Your task to perform on an android device: turn pop-ups off in chrome Image 0: 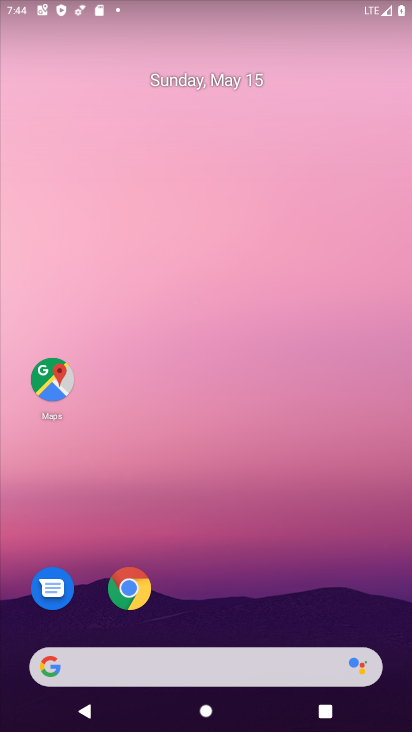
Step 0: drag from (331, 514) to (296, 64)
Your task to perform on an android device: turn pop-ups off in chrome Image 1: 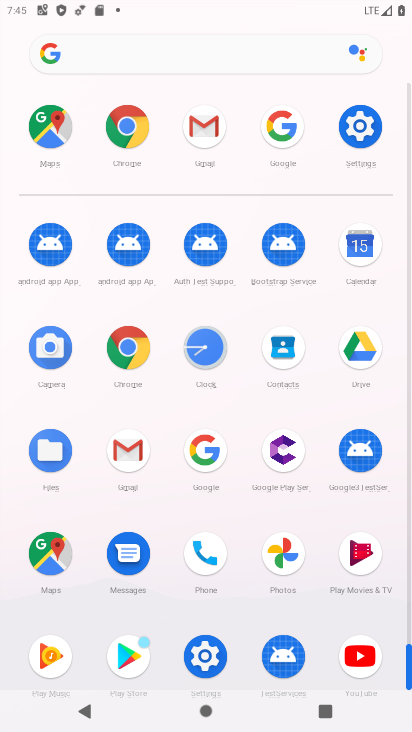
Step 1: click (120, 137)
Your task to perform on an android device: turn pop-ups off in chrome Image 2: 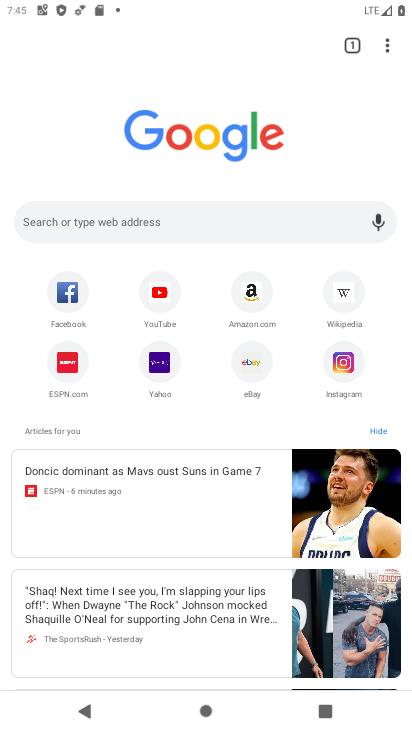
Step 2: click (387, 36)
Your task to perform on an android device: turn pop-ups off in chrome Image 3: 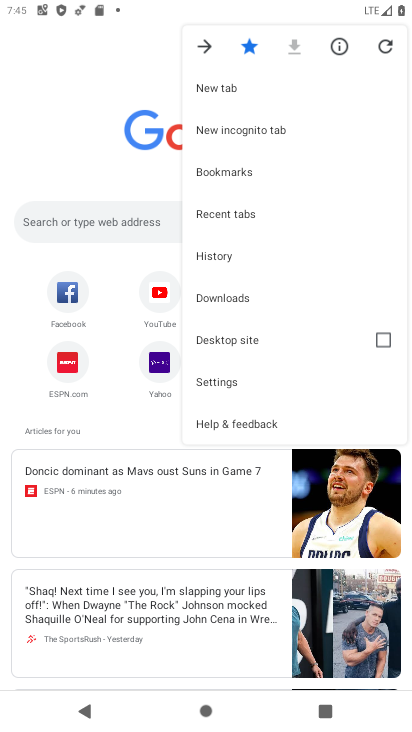
Step 3: click (239, 377)
Your task to perform on an android device: turn pop-ups off in chrome Image 4: 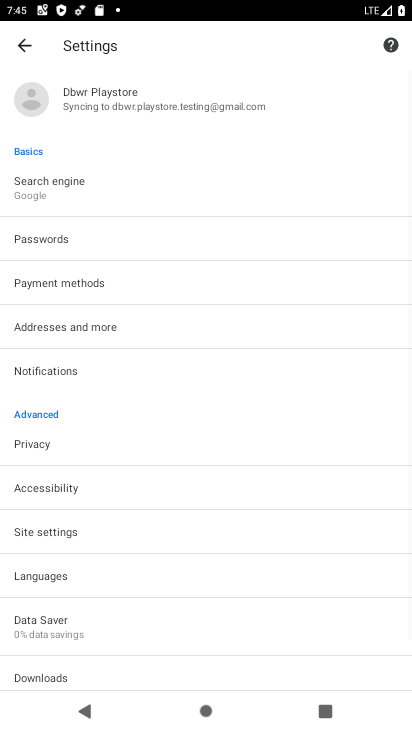
Step 4: click (132, 538)
Your task to perform on an android device: turn pop-ups off in chrome Image 5: 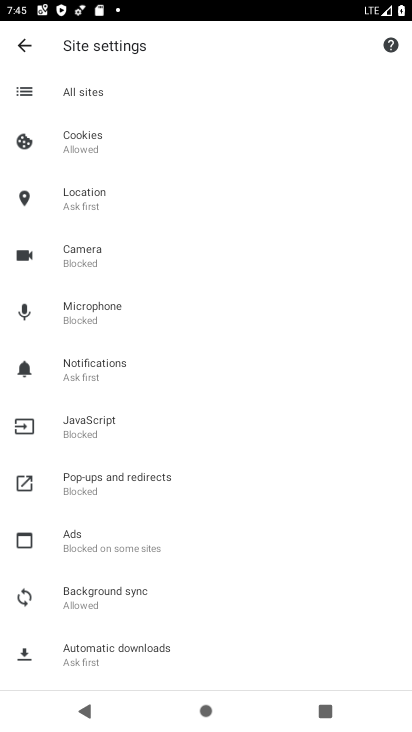
Step 5: click (118, 485)
Your task to perform on an android device: turn pop-ups off in chrome Image 6: 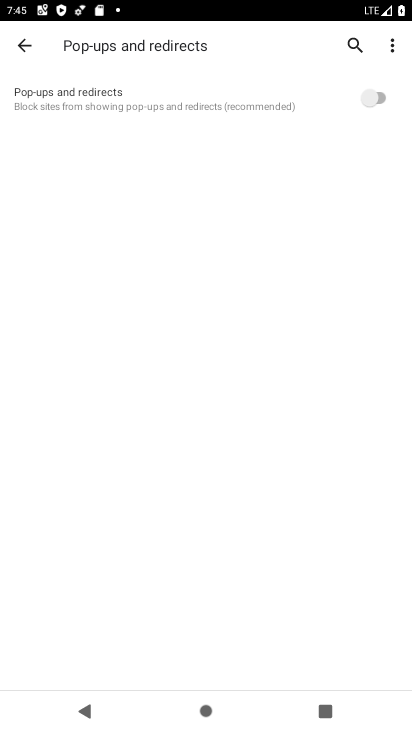
Step 6: task complete